Your task to perform on an android device: Open eBay Image 0: 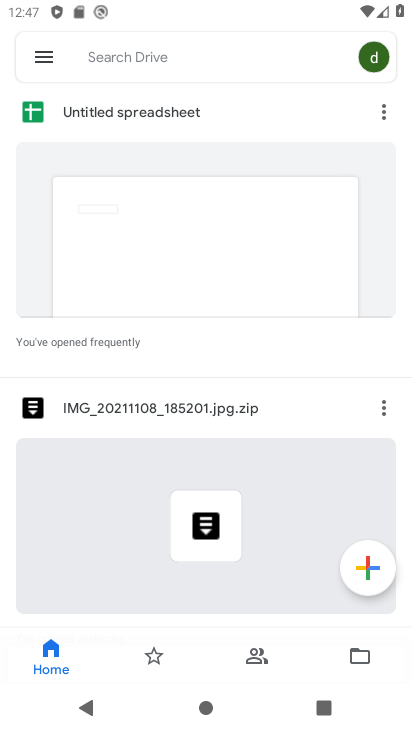
Step 0: press home button
Your task to perform on an android device: Open eBay Image 1: 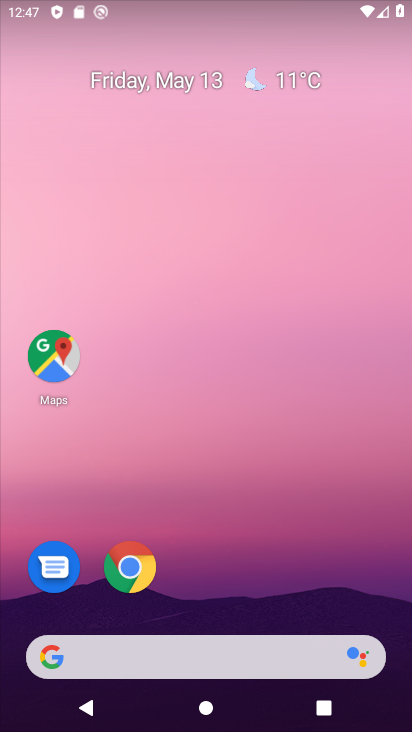
Step 1: click (124, 575)
Your task to perform on an android device: Open eBay Image 2: 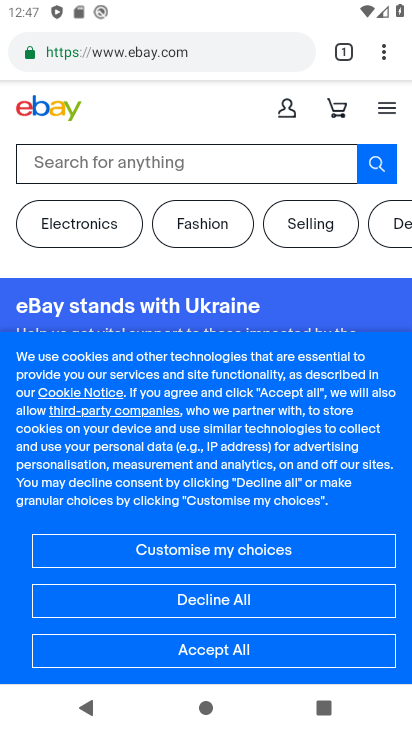
Step 2: task complete